Your task to perform on an android device: turn on bluetooth scan Image 0: 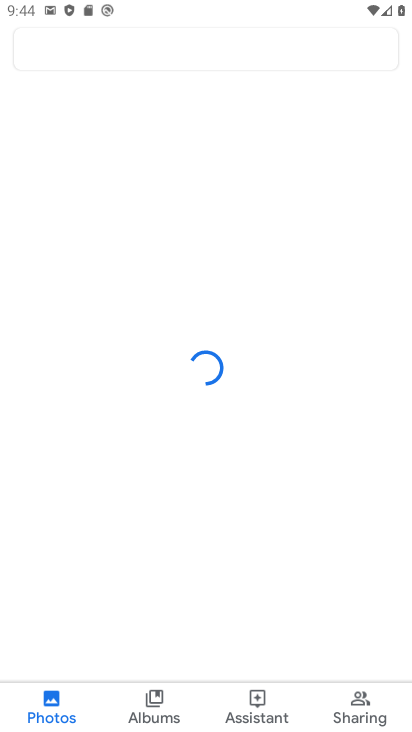
Step 0: drag from (203, 572) to (197, 364)
Your task to perform on an android device: turn on bluetooth scan Image 1: 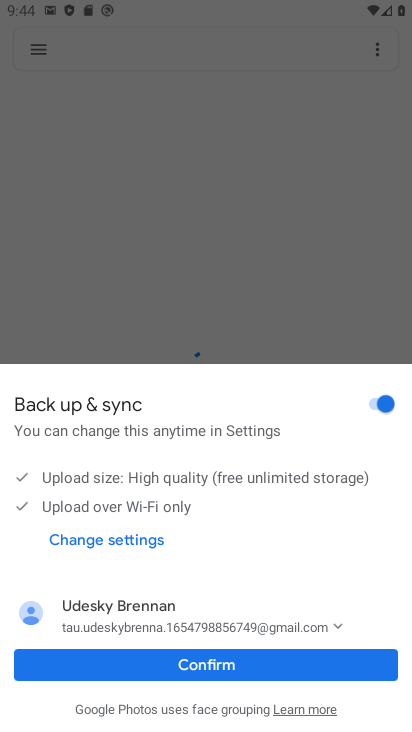
Step 1: click (185, 664)
Your task to perform on an android device: turn on bluetooth scan Image 2: 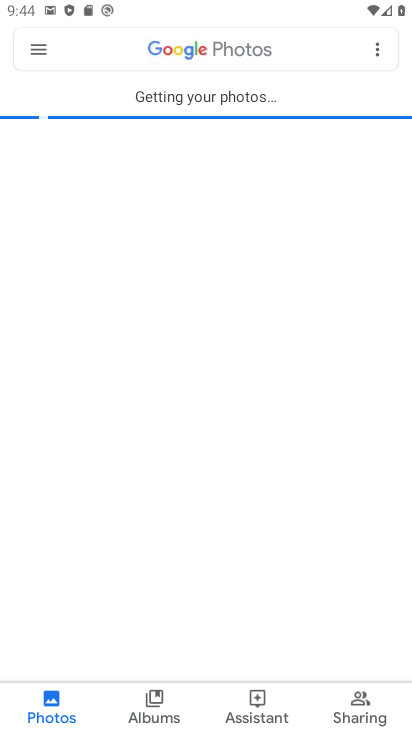
Step 2: drag from (183, 627) to (235, 248)
Your task to perform on an android device: turn on bluetooth scan Image 3: 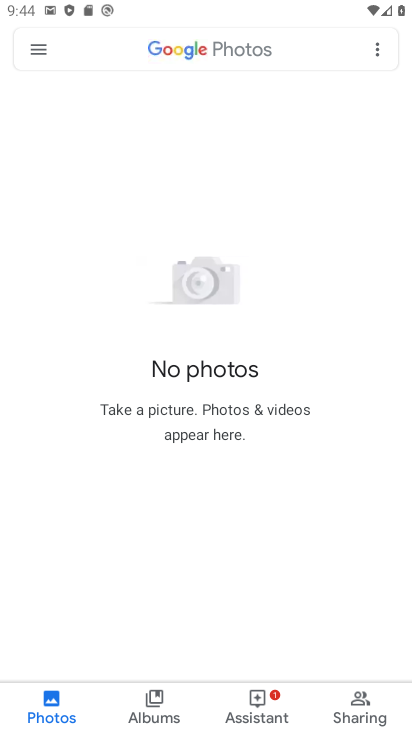
Step 3: click (272, 360)
Your task to perform on an android device: turn on bluetooth scan Image 4: 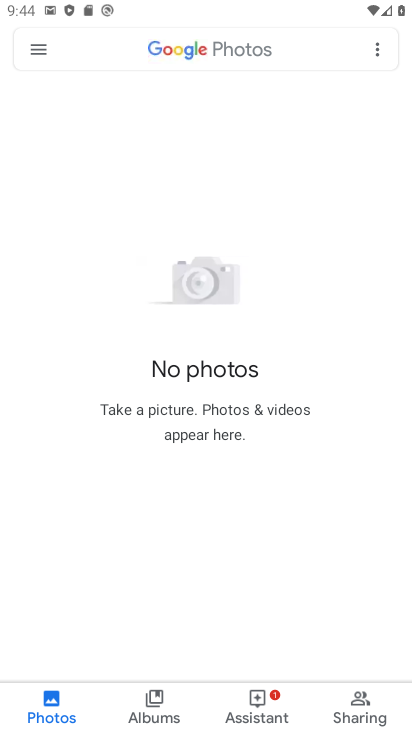
Step 4: press home button
Your task to perform on an android device: turn on bluetooth scan Image 5: 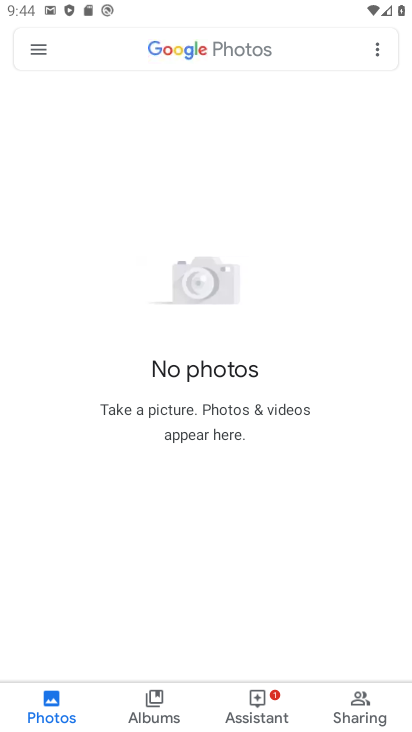
Step 5: drag from (210, 573) to (303, 13)
Your task to perform on an android device: turn on bluetooth scan Image 6: 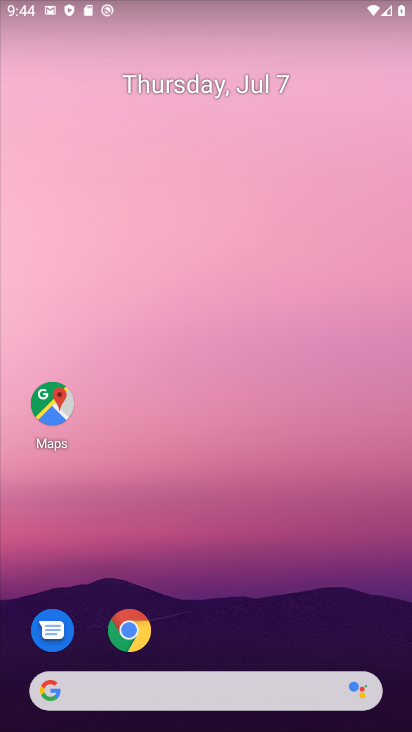
Step 6: drag from (177, 577) to (228, 7)
Your task to perform on an android device: turn on bluetooth scan Image 7: 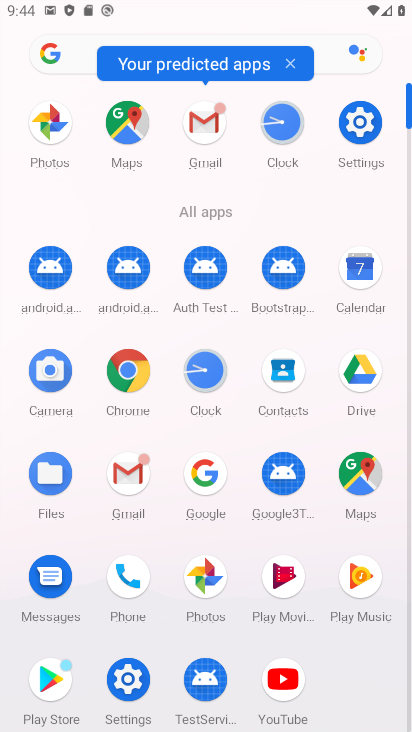
Step 7: click (363, 117)
Your task to perform on an android device: turn on bluetooth scan Image 8: 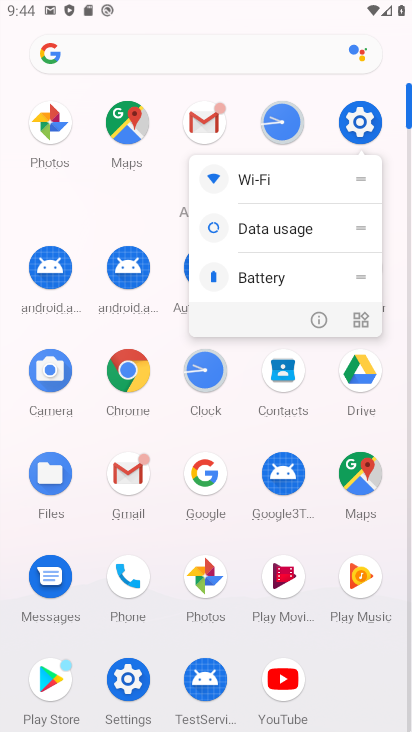
Step 8: click (314, 321)
Your task to perform on an android device: turn on bluetooth scan Image 9: 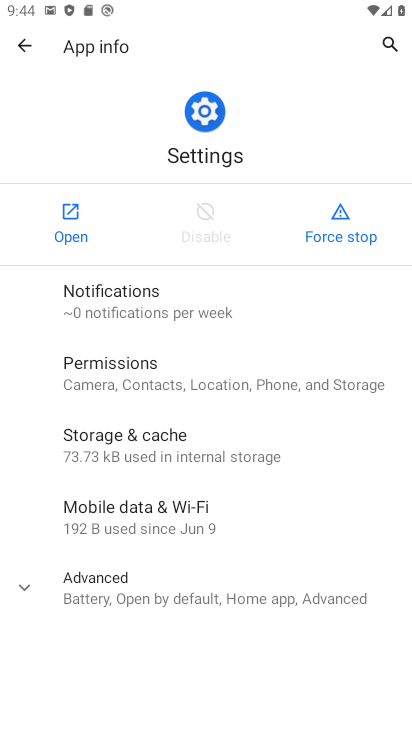
Step 9: click (92, 216)
Your task to perform on an android device: turn on bluetooth scan Image 10: 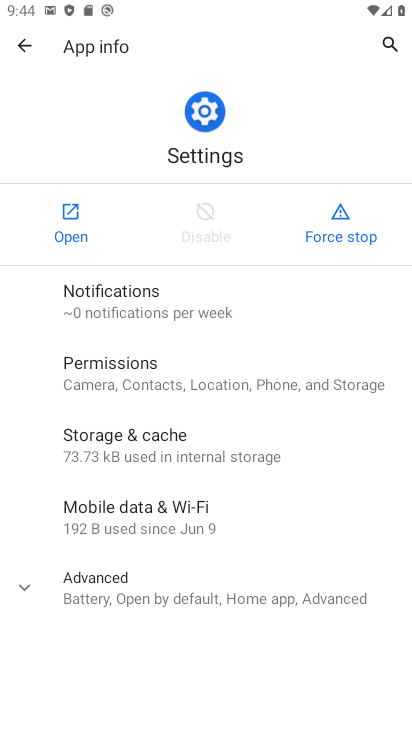
Step 10: click (79, 212)
Your task to perform on an android device: turn on bluetooth scan Image 11: 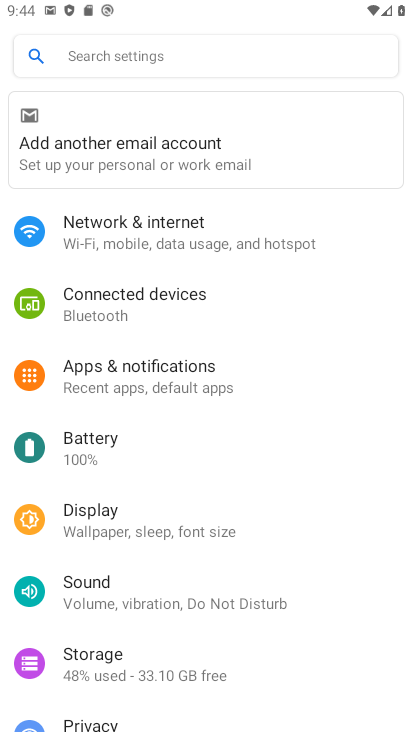
Step 11: click (146, 372)
Your task to perform on an android device: turn on bluetooth scan Image 12: 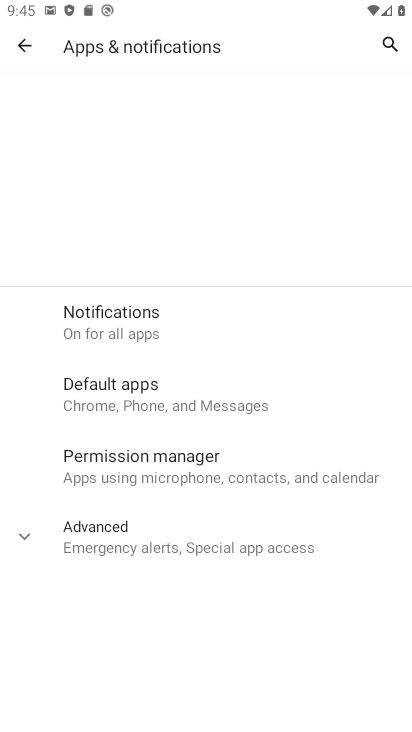
Step 12: click (30, 47)
Your task to perform on an android device: turn on bluetooth scan Image 13: 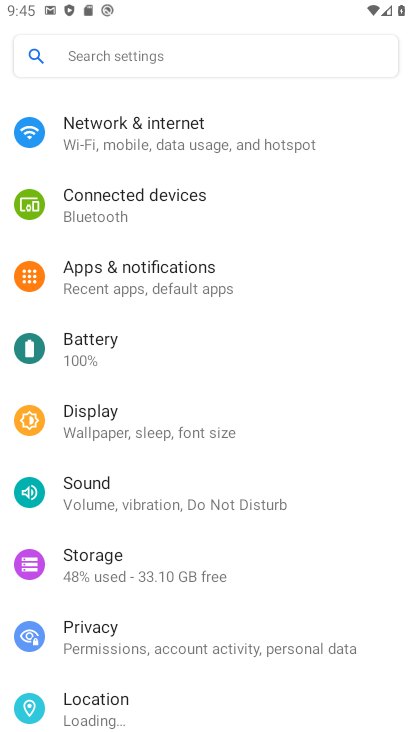
Step 13: drag from (126, 507) to (270, 2)
Your task to perform on an android device: turn on bluetooth scan Image 14: 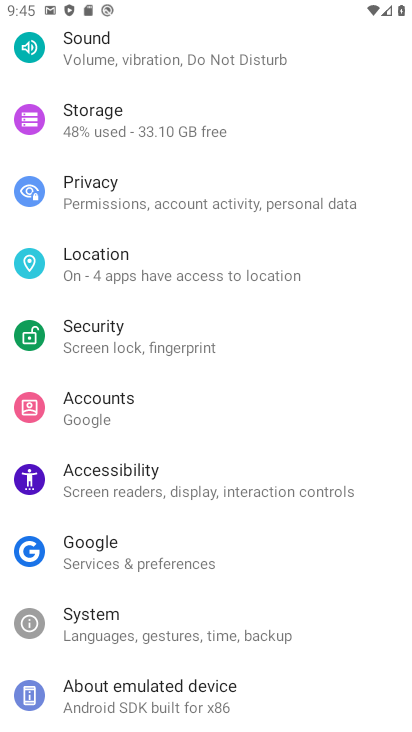
Step 14: click (98, 257)
Your task to perform on an android device: turn on bluetooth scan Image 15: 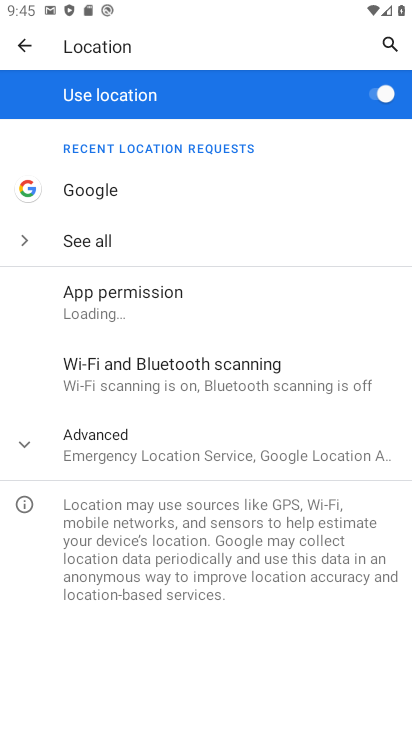
Step 15: click (172, 361)
Your task to perform on an android device: turn on bluetooth scan Image 16: 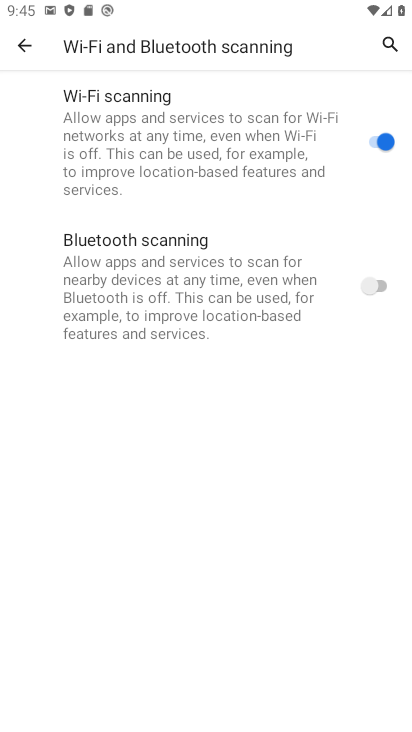
Step 16: click (186, 268)
Your task to perform on an android device: turn on bluetooth scan Image 17: 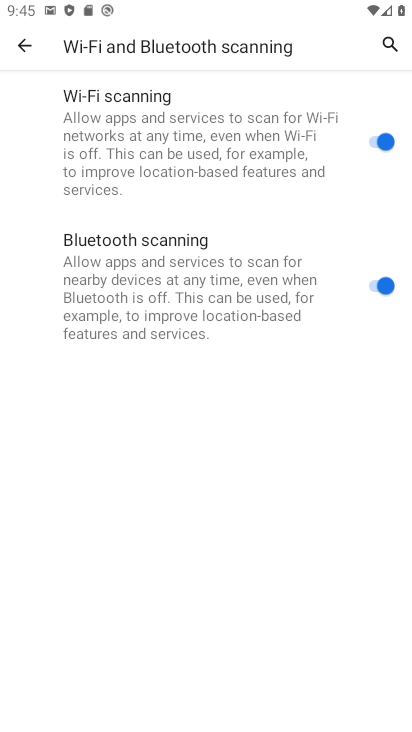
Step 17: task complete